Your task to perform on an android device: Go to wifi settings Image 0: 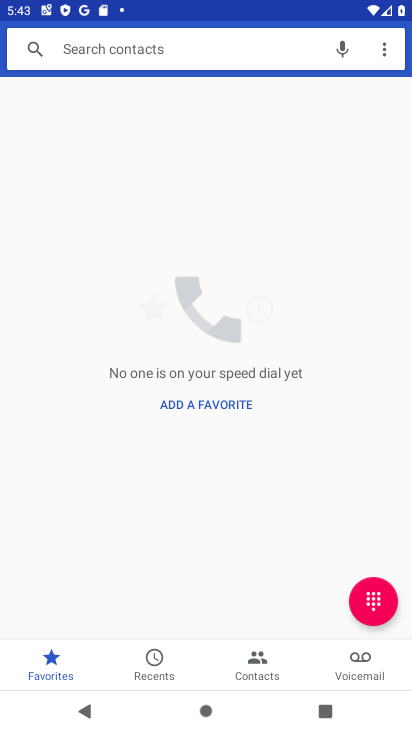
Step 0: press home button
Your task to perform on an android device: Go to wifi settings Image 1: 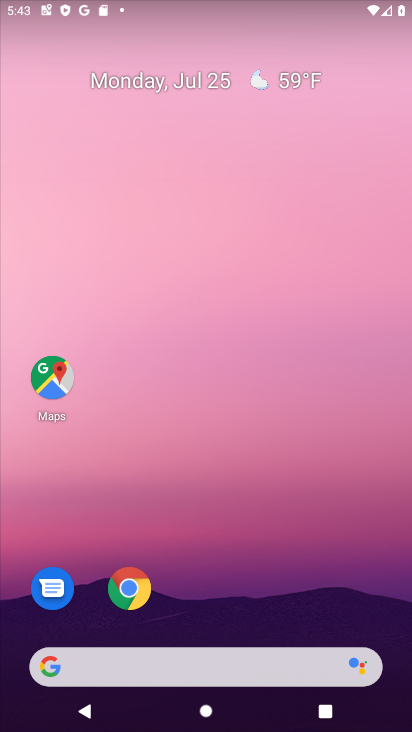
Step 1: drag from (261, 507) to (317, 203)
Your task to perform on an android device: Go to wifi settings Image 2: 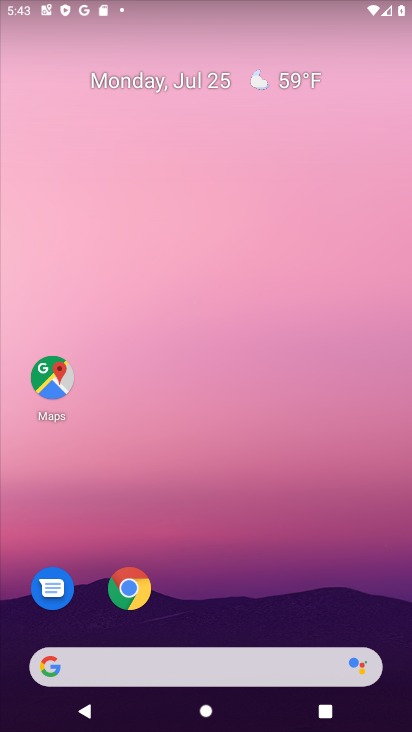
Step 2: drag from (286, 486) to (264, 67)
Your task to perform on an android device: Go to wifi settings Image 3: 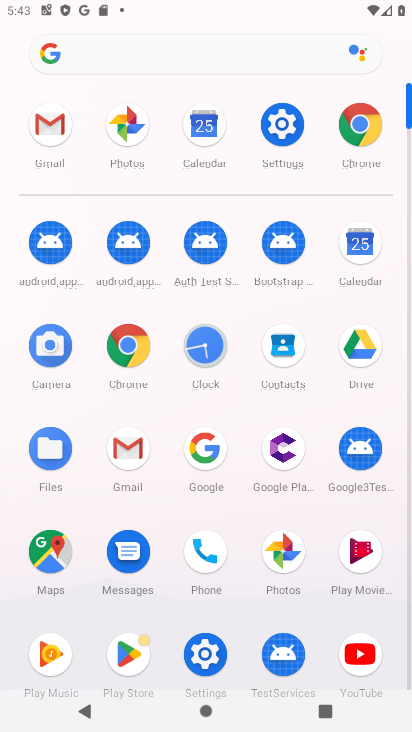
Step 3: click (298, 117)
Your task to perform on an android device: Go to wifi settings Image 4: 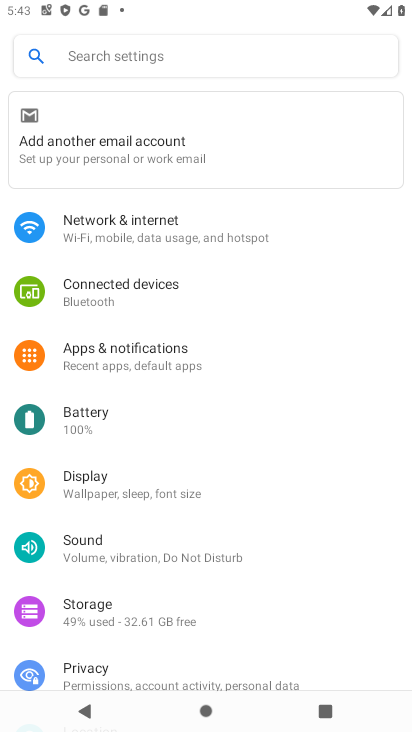
Step 4: click (108, 228)
Your task to perform on an android device: Go to wifi settings Image 5: 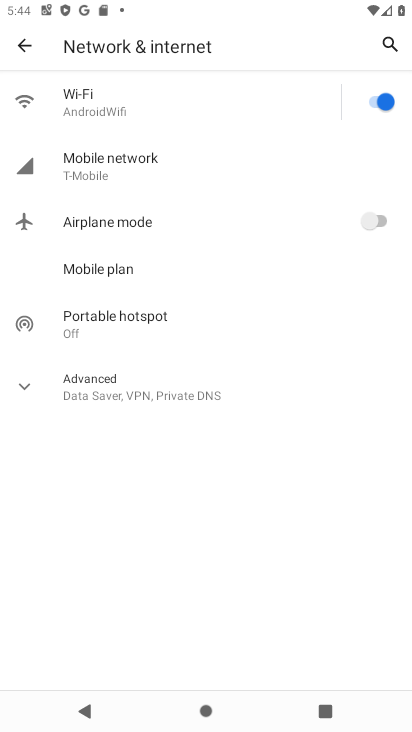
Step 5: task complete